Your task to perform on an android device: Show me productivity apps on the Play Store Image 0: 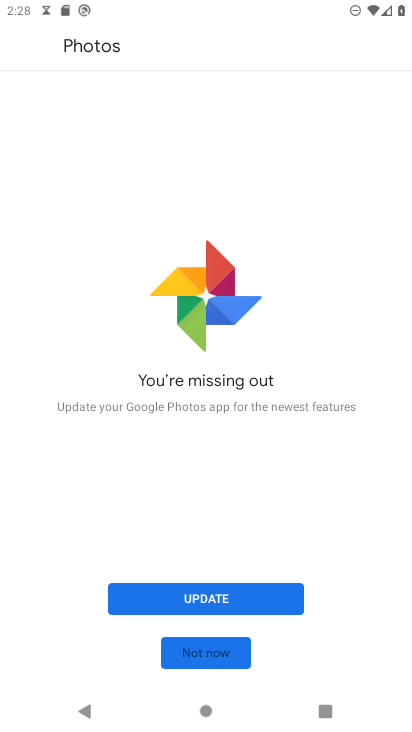
Step 0: press home button
Your task to perform on an android device: Show me productivity apps on the Play Store Image 1: 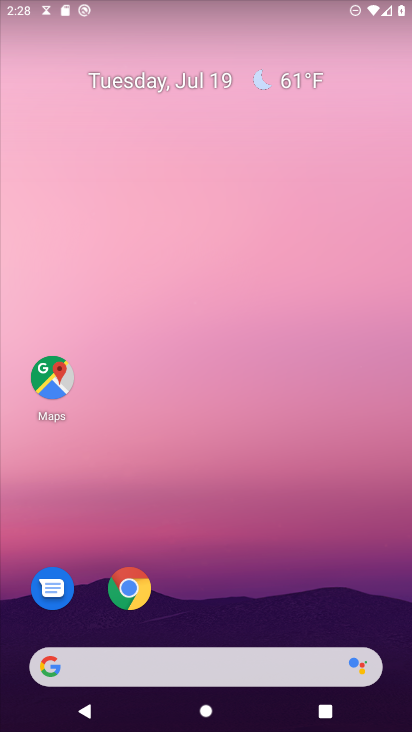
Step 1: drag from (286, 685) to (110, 211)
Your task to perform on an android device: Show me productivity apps on the Play Store Image 2: 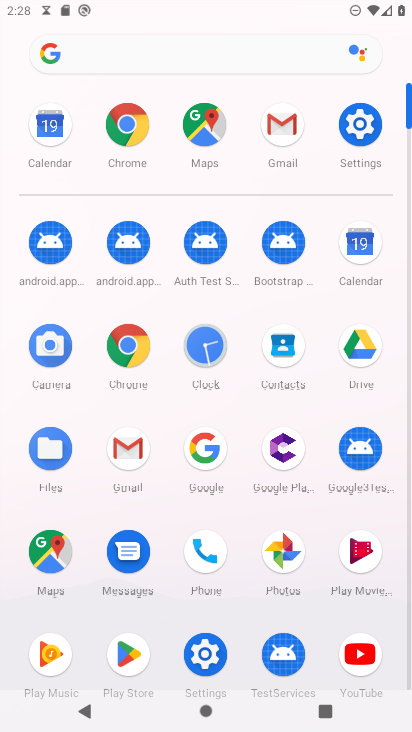
Step 2: click (126, 662)
Your task to perform on an android device: Show me productivity apps on the Play Store Image 3: 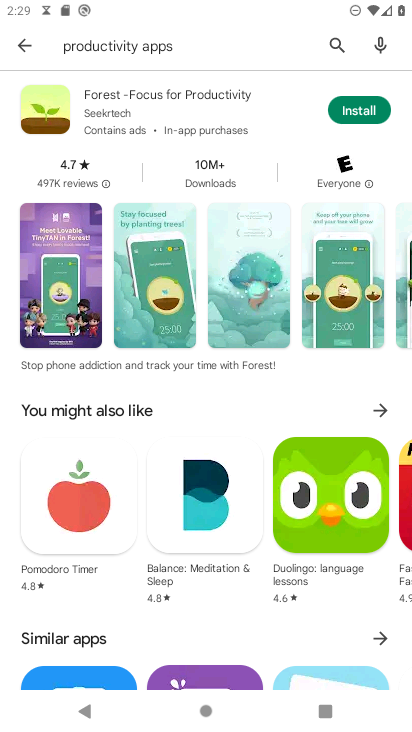
Step 3: click (202, 52)
Your task to perform on an android device: Show me productivity apps on the Play Store Image 4: 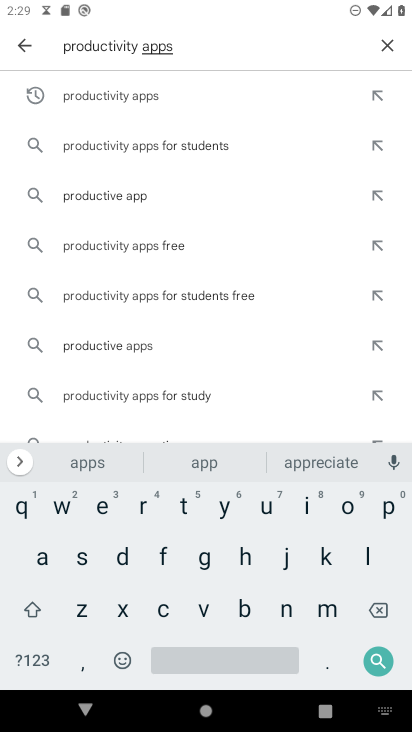
Step 4: click (384, 663)
Your task to perform on an android device: Show me productivity apps on the Play Store Image 5: 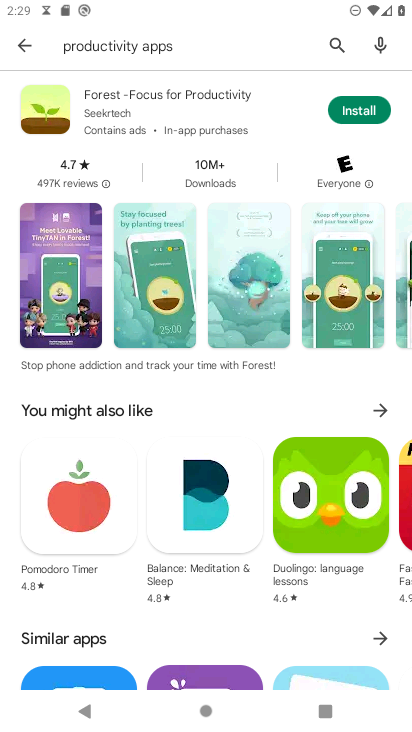
Step 5: task complete